Your task to perform on an android device: What is the news today? Image 0: 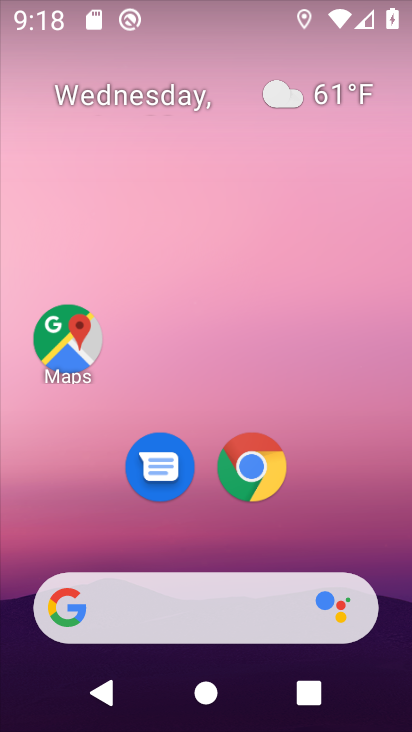
Step 0: drag from (330, 541) to (257, 55)
Your task to perform on an android device: What is the news today? Image 1: 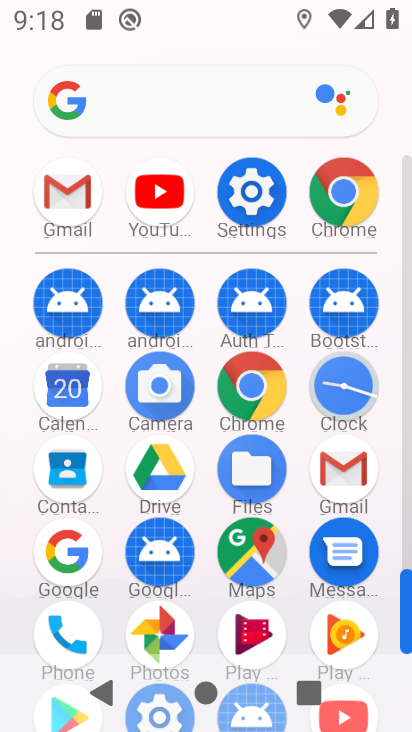
Step 1: click (339, 203)
Your task to perform on an android device: What is the news today? Image 2: 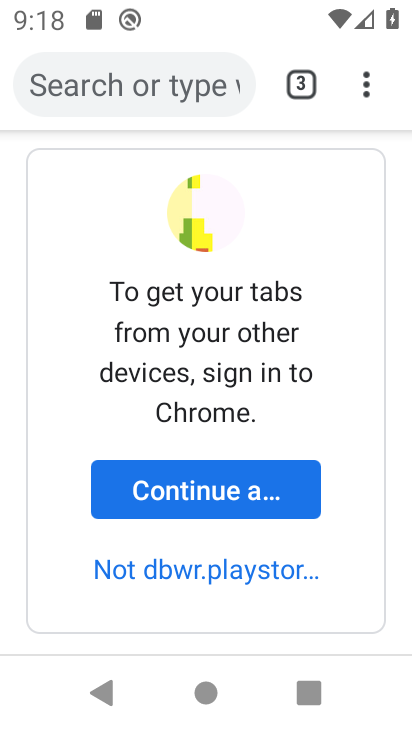
Step 2: click (274, 504)
Your task to perform on an android device: What is the news today? Image 3: 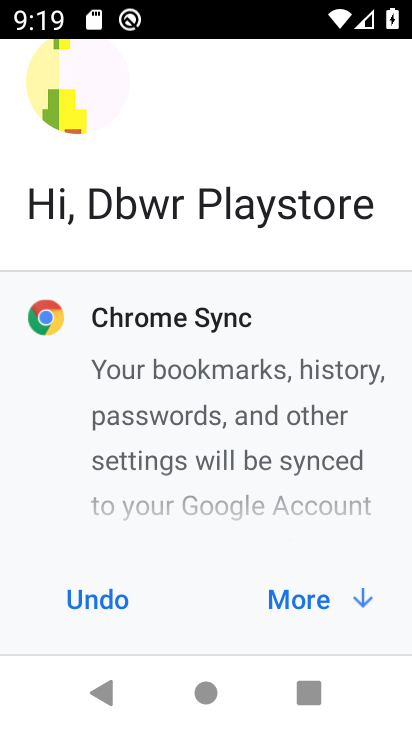
Step 3: click (295, 602)
Your task to perform on an android device: What is the news today? Image 4: 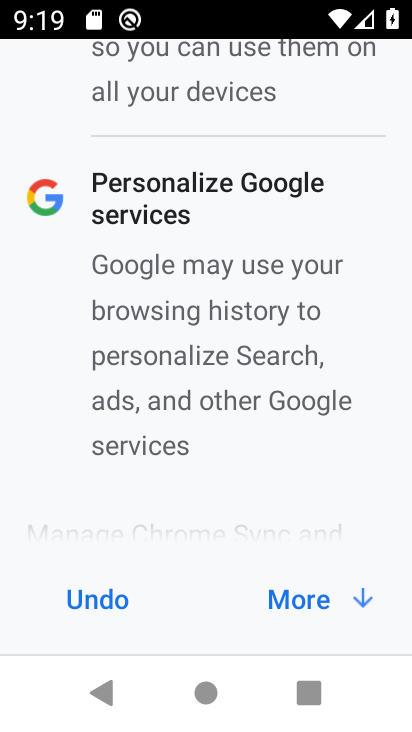
Step 4: click (295, 600)
Your task to perform on an android device: What is the news today? Image 5: 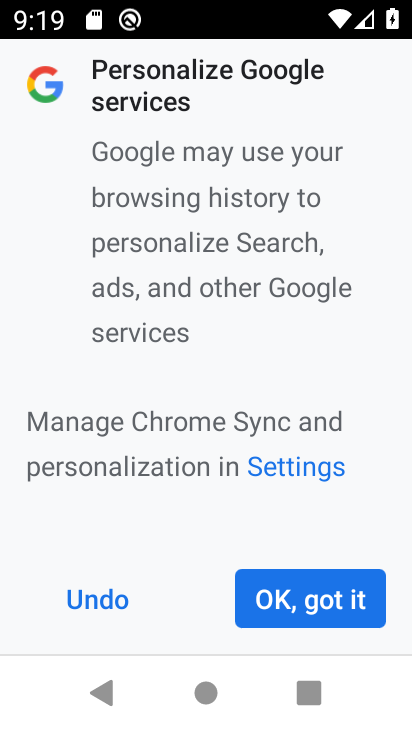
Step 5: click (295, 601)
Your task to perform on an android device: What is the news today? Image 6: 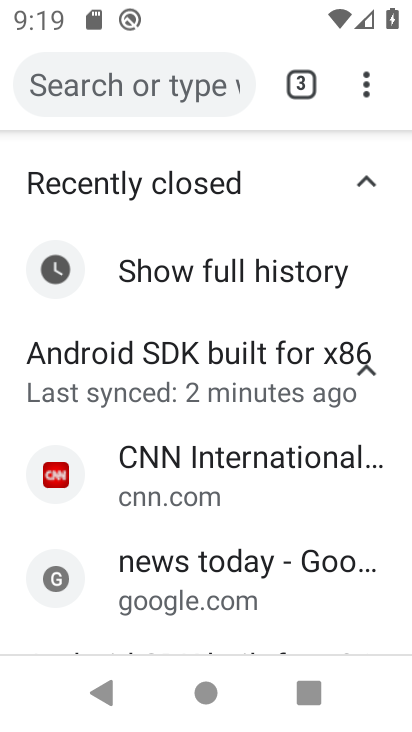
Step 6: drag from (364, 92) to (110, 294)
Your task to perform on an android device: What is the news today? Image 7: 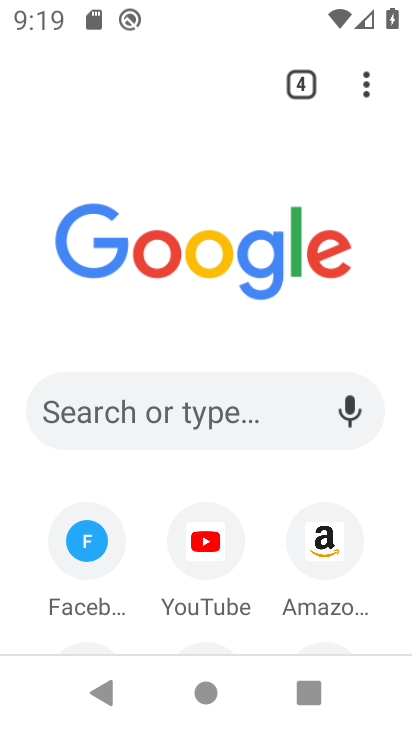
Step 7: drag from (365, 552) to (269, 206)
Your task to perform on an android device: What is the news today? Image 8: 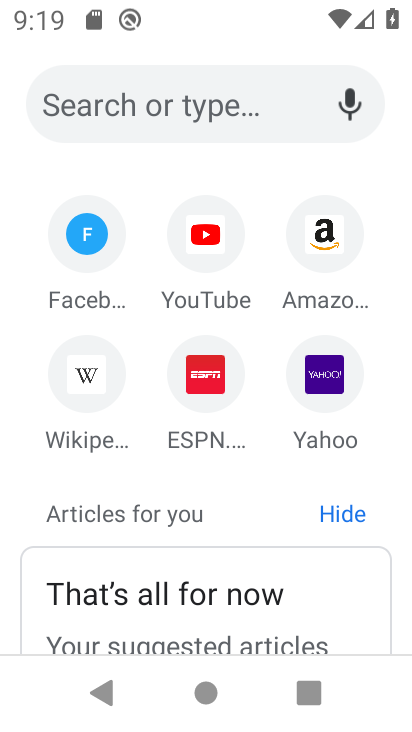
Step 8: drag from (334, 576) to (253, 262)
Your task to perform on an android device: What is the news today? Image 9: 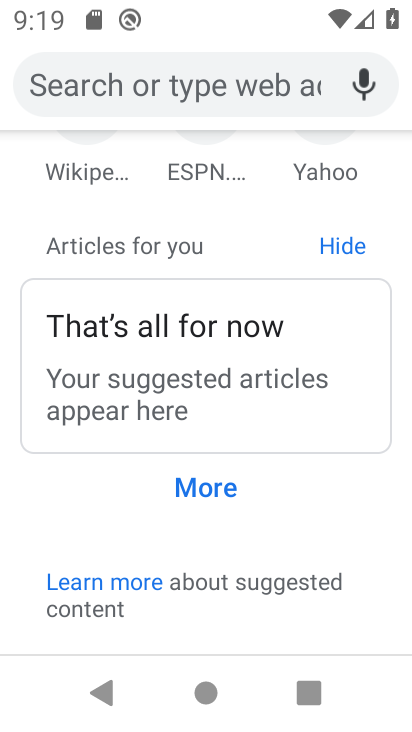
Step 9: drag from (264, 493) to (238, 211)
Your task to perform on an android device: What is the news today? Image 10: 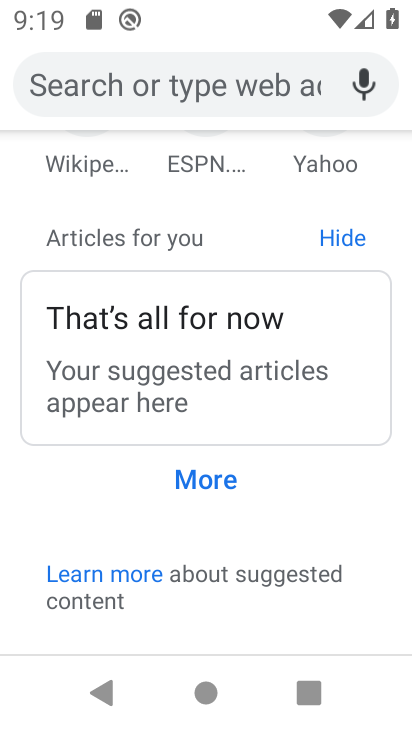
Step 10: click (212, 498)
Your task to perform on an android device: What is the news today? Image 11: 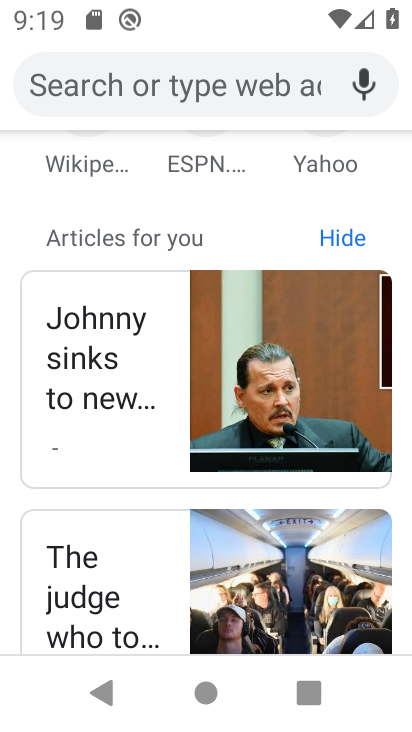
Step 11: task complete